Your task to perform on an android device: Search for Mexican restaurants on Maps Image 0: 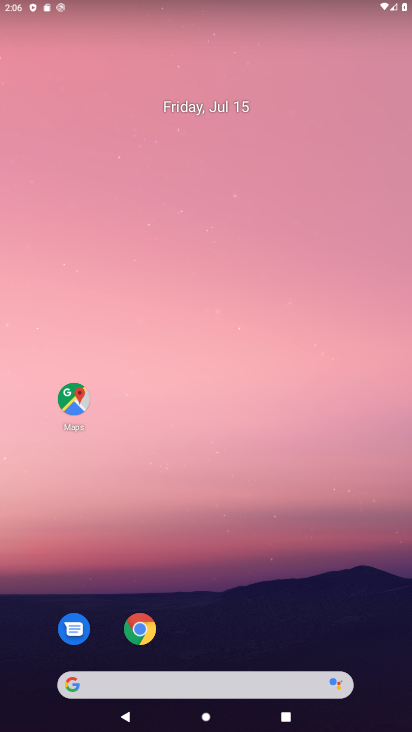
Step 0: click (78, 402)
Your task to perform on an android device: Search for Mexican restaurants on Maps Image 1: 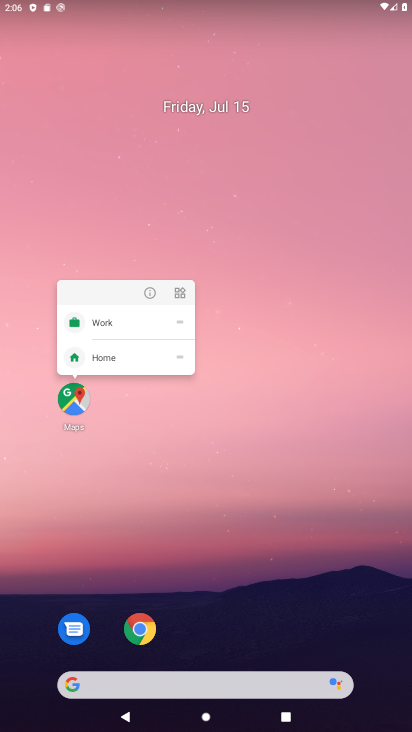
Step 1: click (73, 404)
Your task to perform on an android device: Search for Mexican restaurants on Maps Image 2: 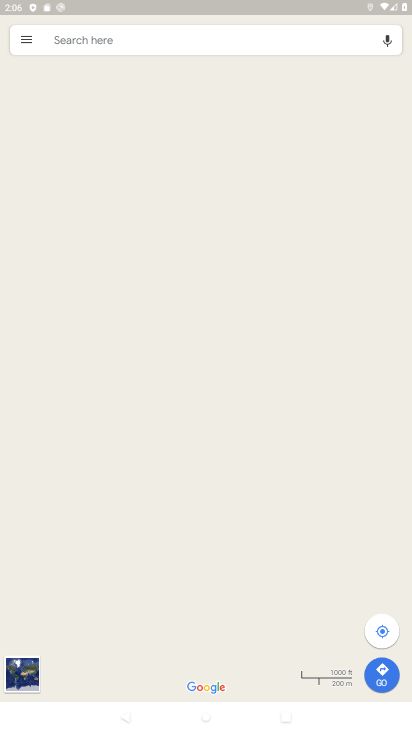
Step 2: click (207, 44)
Your task to perform on an android device: Search for Mexican restaurants on Maps Image 3: 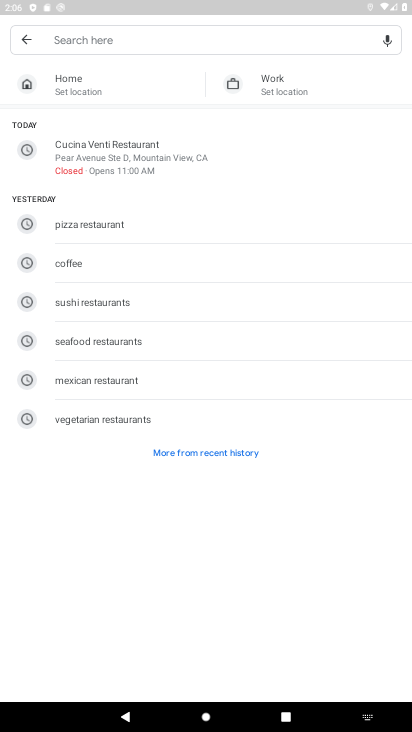
Step 3: click (108, 382)
Your task to perform on an android device: Search for Mexican restaurants on Maps Image 4: 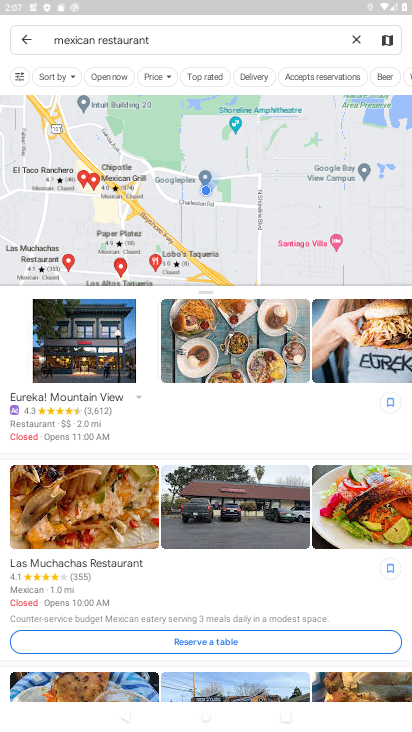
Step 4: task complete